Your task to perform on an android device: turn off javascript in the chrome app Image 0: 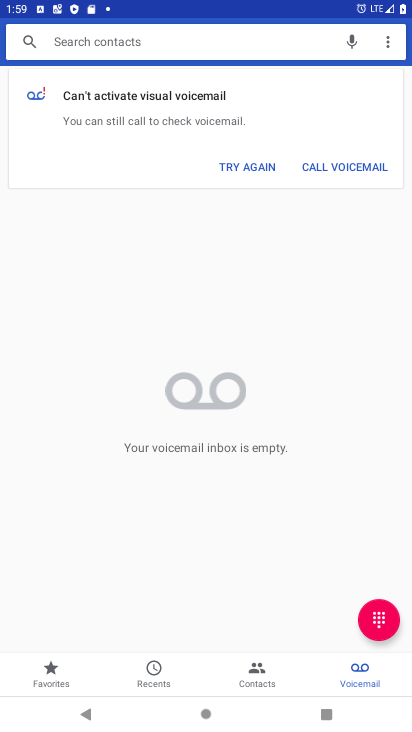
Step 0: press home button
Your task to perform on an android device: turn off javascript in the chrome app Image 1: 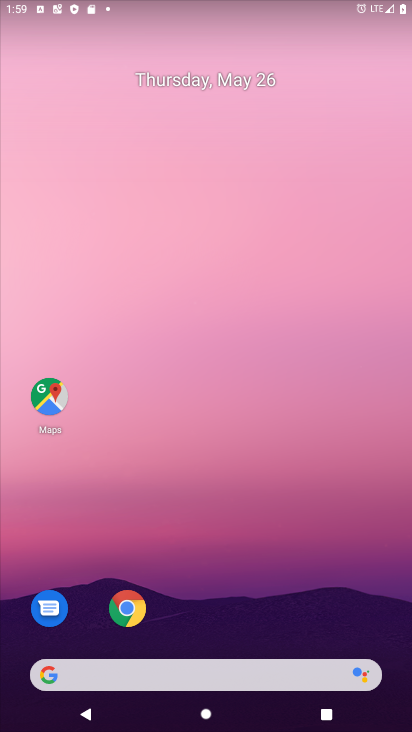
Step 1: click (127, 604)
Your task to perform on an android device: turn off javascript in the chrome app Image 2: 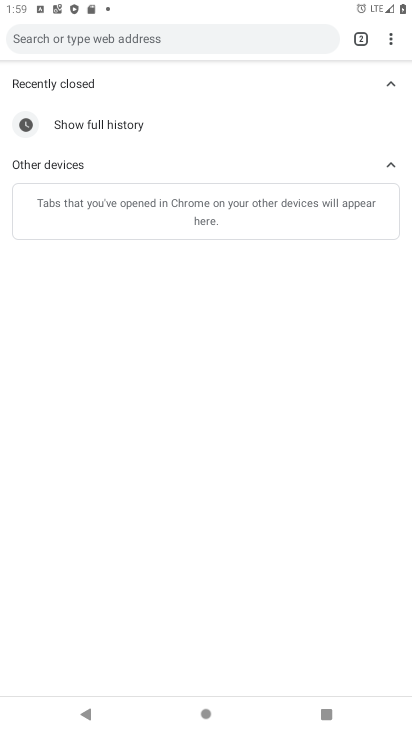
Step 2: click (390, 43)
Your task to perform on an android device: turn off javascript in the chrome app Image 3: 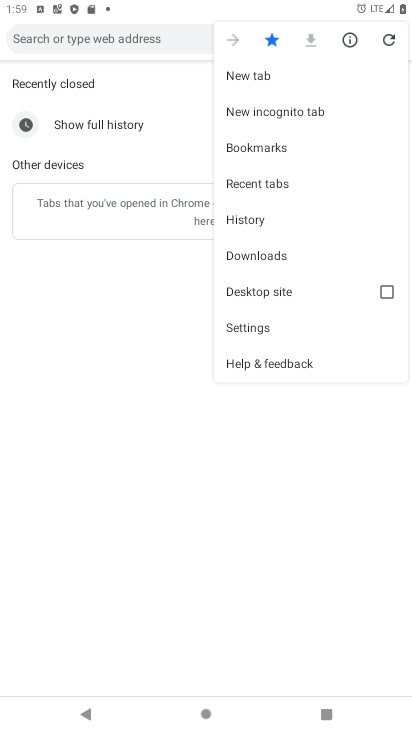
Step 3: click (253, 332)
Your task to perform on an android device: turn off javascript in the chrome app Image 4: 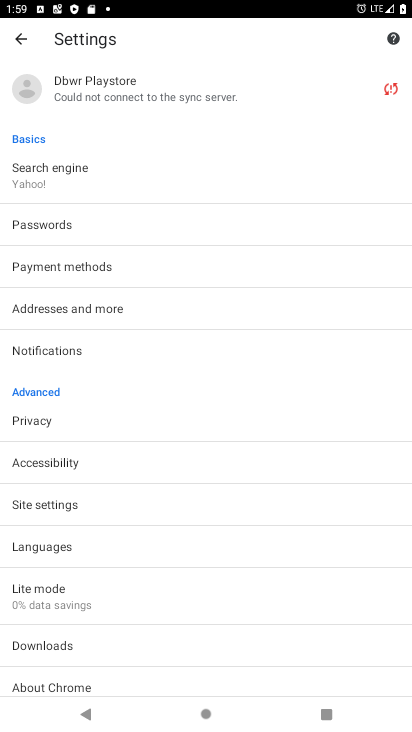
Step 4: click (45, 501)
Your task to perform on an android device: turn off javascript in the chrome app Image 5: 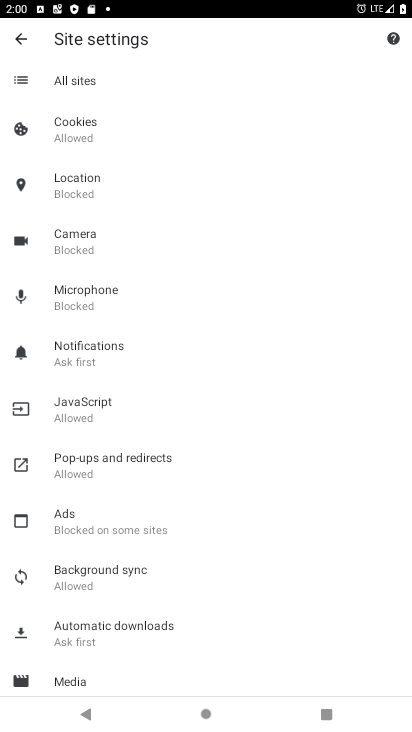
Step 5: click (58, 399)
Your task to perform on an android device: turn off javascript in the chrome app Image 6: 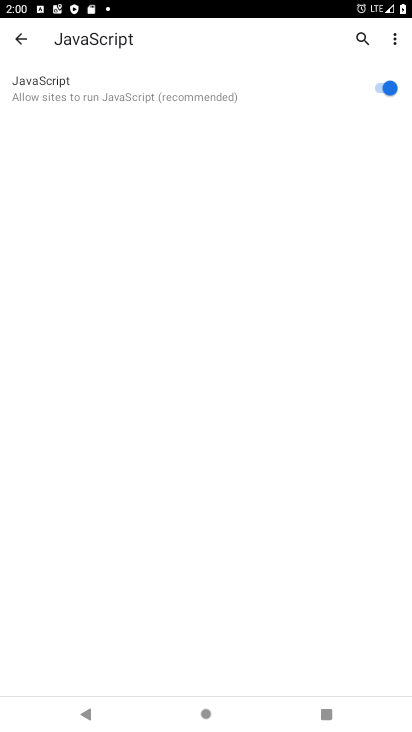
Step 6: click (374, 87)
Your task to perform on an android device: turn off javascript in the chrome app Image 7: 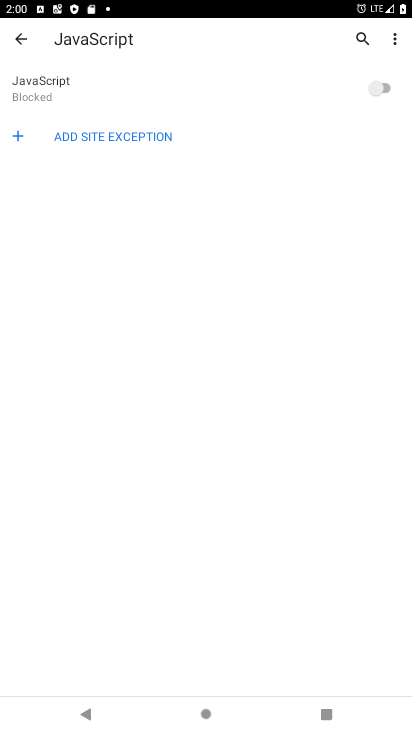
Step 7: task complete